Your task to perform on an android device: visit the assistant section in the google photos Image 0: 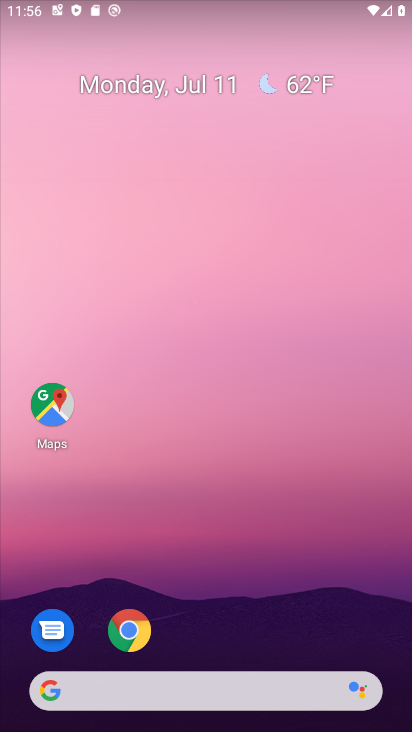
Step 0: drag from (277, 684) to (348, 93)
Your task to perform on an android device: visit the assistant section in the google photos Image 1: 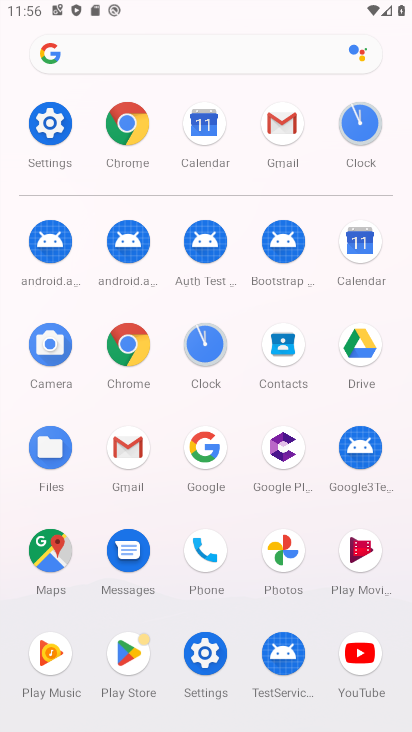
Step 1: click (284, 555)
Your task to perform on an android device: visit the assistant section in the google photos Image 2: 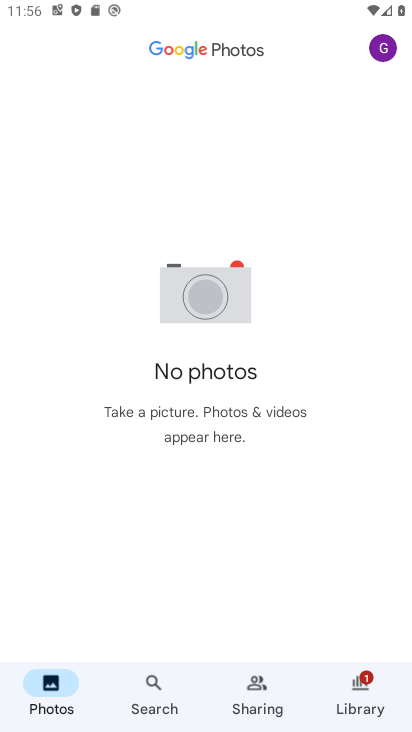
Step 2: task complete